Your task to perform on an android device: Search for seafood restaurants on Google Maps Image 0: 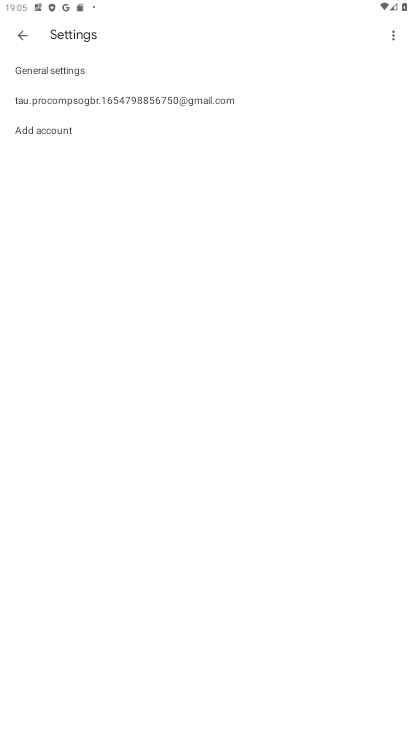
Step 0: press home button
Your task to perform on an android device: Search for seafood restaurants on Google Maps Image 1: 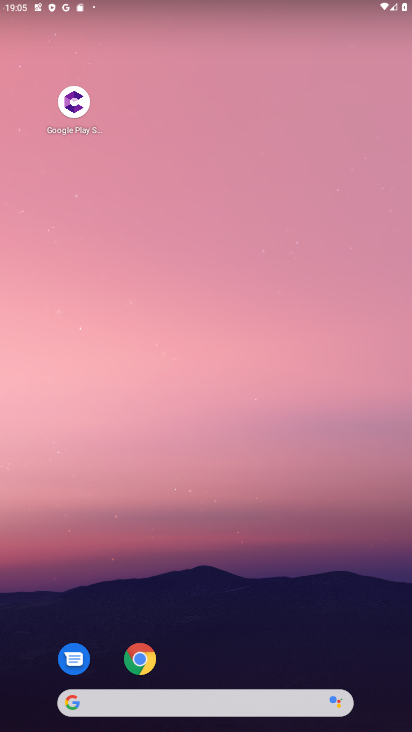
Step 1: drag from (177, 653) to (219, 124)
Your task to perform on an android device: Search for seafood restaurants on Google Maps Image 2: 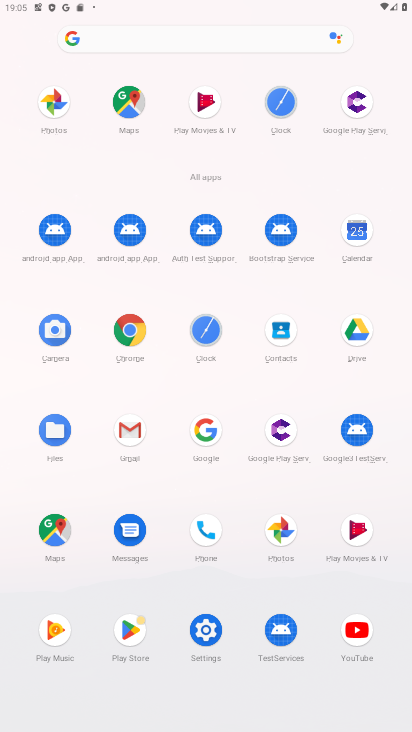
Step 2: click (52, 521)
Your task to perform on an android device: Search for seafood restaurants on Google Maps Image 3: 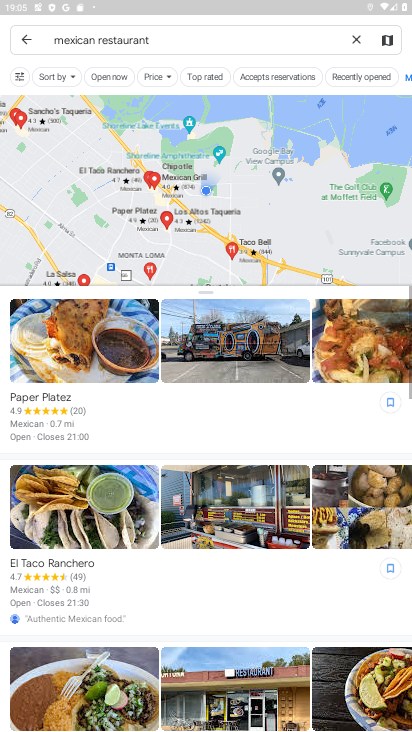
Step 3: click (27, 42)
Your task to perform on an android device: Search for seafood restaurants on Google Maps Image 4: 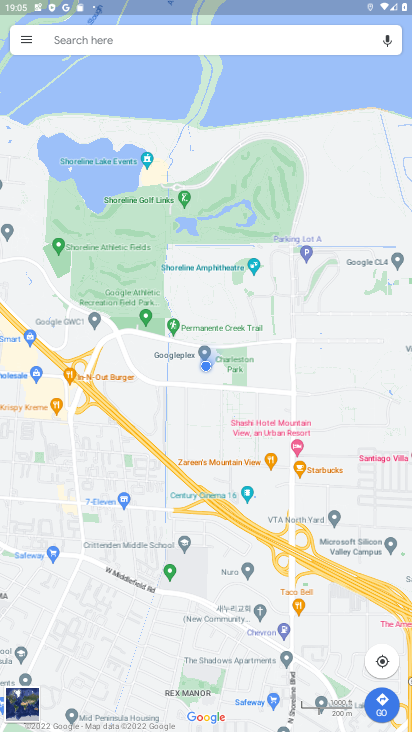
Step 4: click (125, 42)
Your task to perform on an android device: Search for seafood restaurants on Google Maps Image 5: 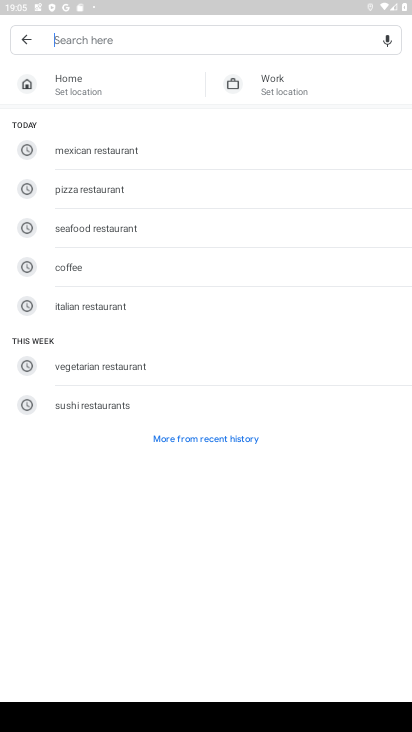
Step 5: click (100, 229)
Your task to perform on an android device: Search for seafood restaurants on Google Maps Image 6: 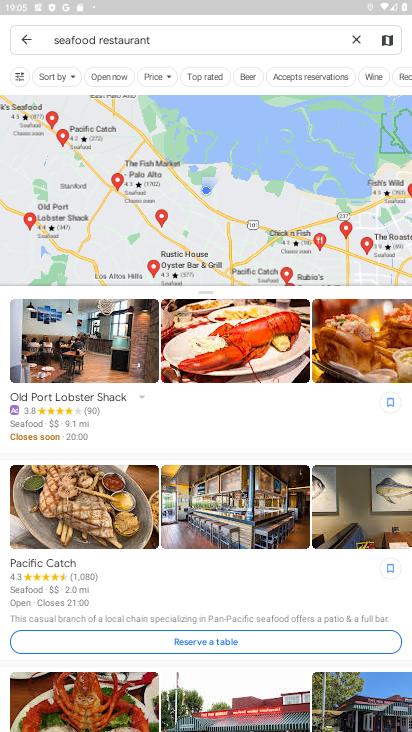
Step 6: task complete